Your task to perform on an android device: open a new tab in the chrome app Image 0: 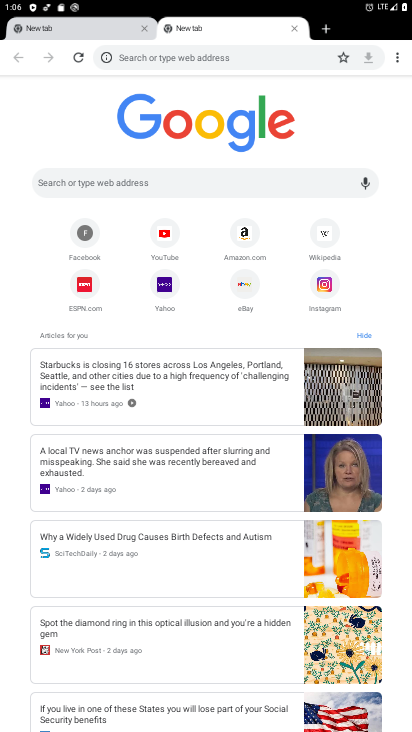
Step 0: click (323, 27)
Your task to perform on an android device: open a new tab in the chrome app Image 1: 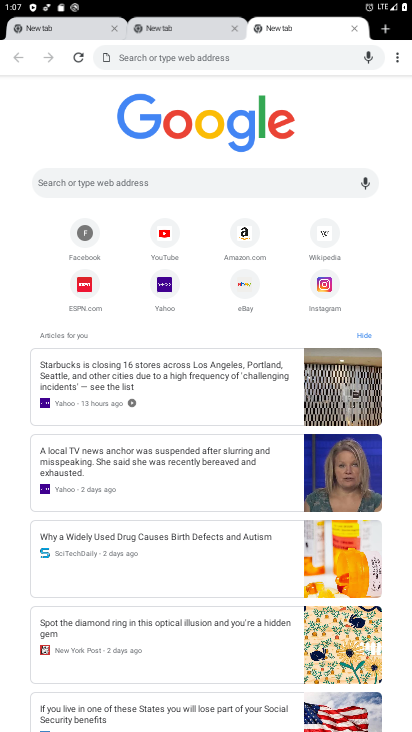
Step 1: task complete